Your task to perform on an android device: Go to ESPN.com Image 0: 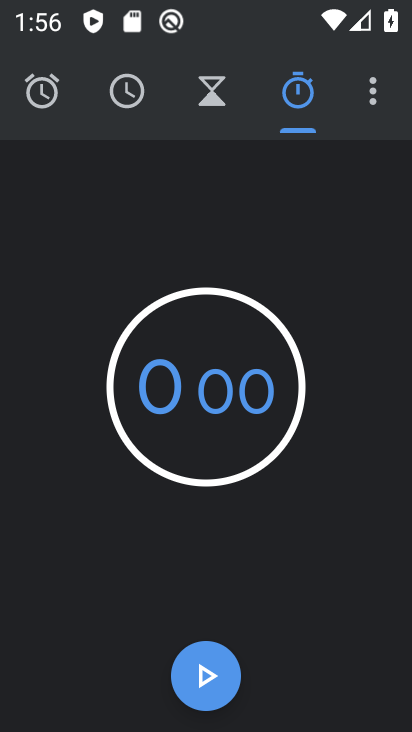
Step 0: press home button
Your task to perform on an android device: Go to ESPN.com Image 1: 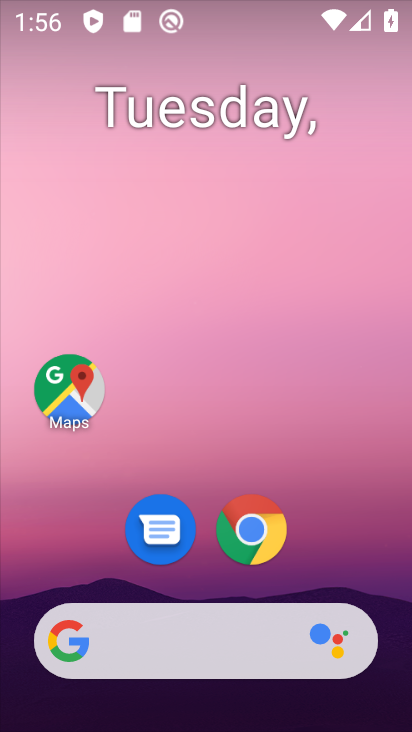
Step 1: drag from (384, 631) to (180, 81)
Your task to perform on an android device: Go to ESPN.com Image 2: 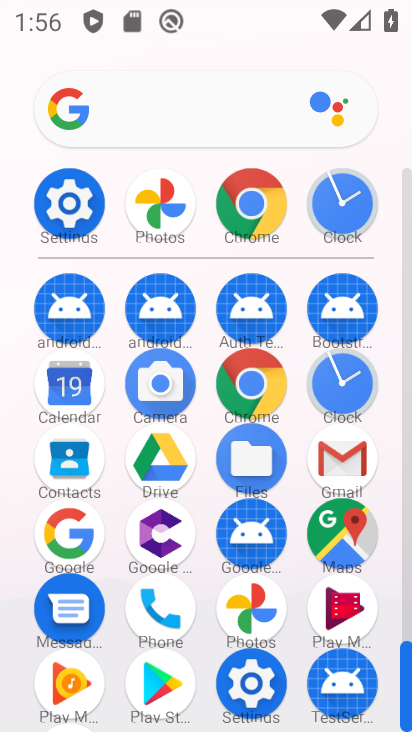
Step 2: click (254, 388)
Your task to perform on an android device: Go to ESPN.com Image 3: 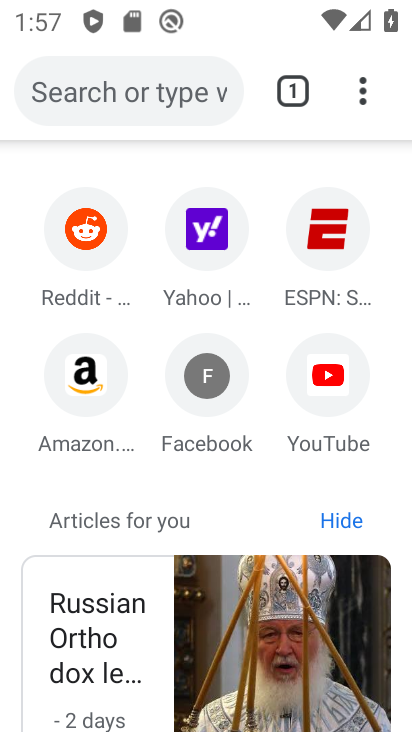
Step 3: click (327, 257)
Your task to perform on an android device: Go to ESPN.com Image 4: 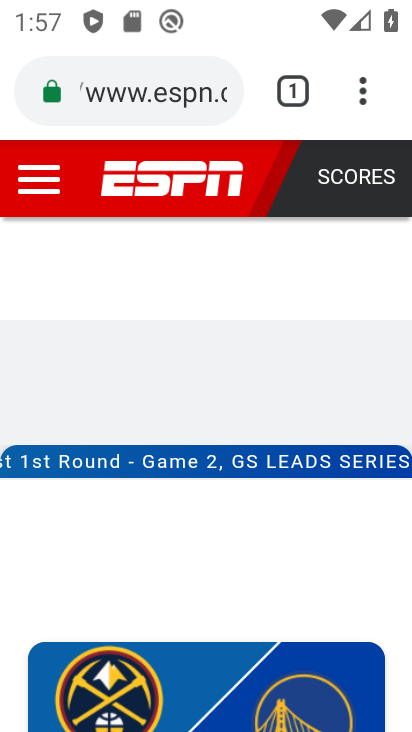
Step 4: task complete